Your task to perform on an android device: toggle data saver in the chrome app Image 0: 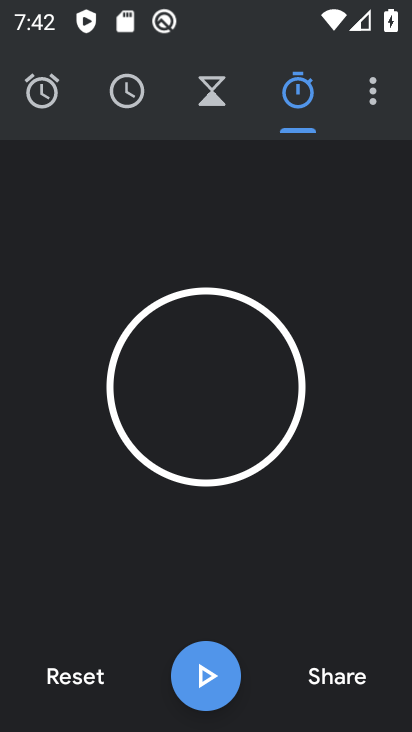
Step 0: press home button
Your task to perform on an android device: toggle data saver in the chrome app Image 1: 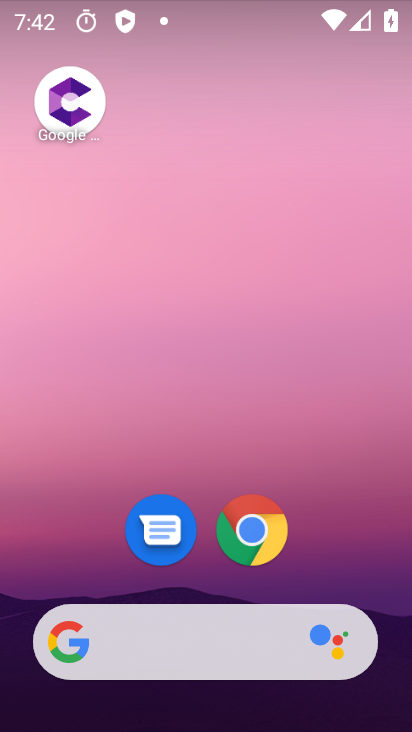
Step 1: click (259, 527)
Your task to perform on an android device: toggle data saver in the chrome app Image 2: 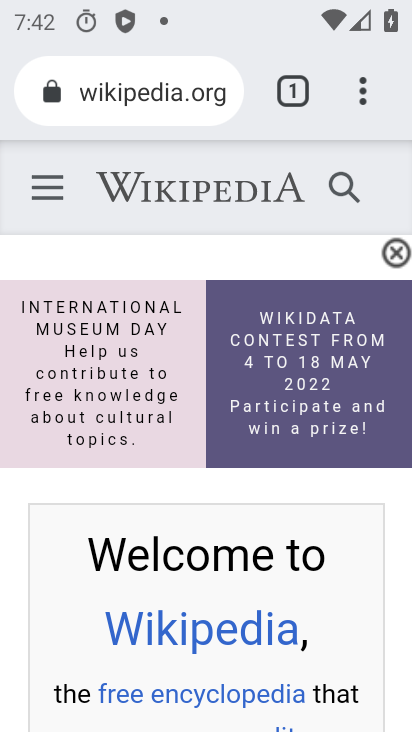
Step 2: drag from (361, 78) to (217, 583)
Your task to perform on an android device: toggle data saver in the chrome app Image 3: 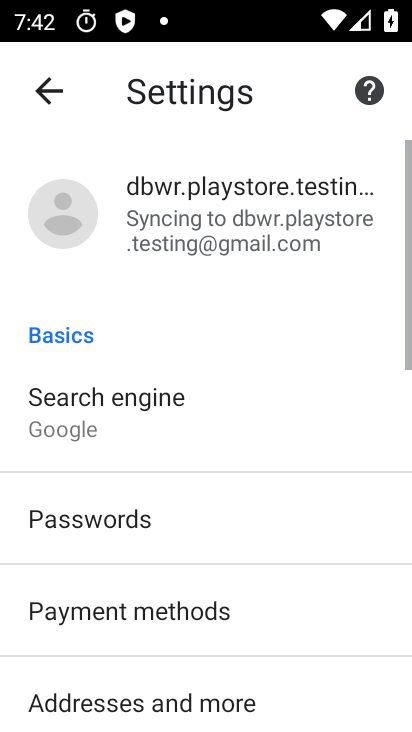
Step 3: drag from (217, 583) to (172, 133)
Your task to perform on an android device: toggle data saver in the chrome app Image 4: 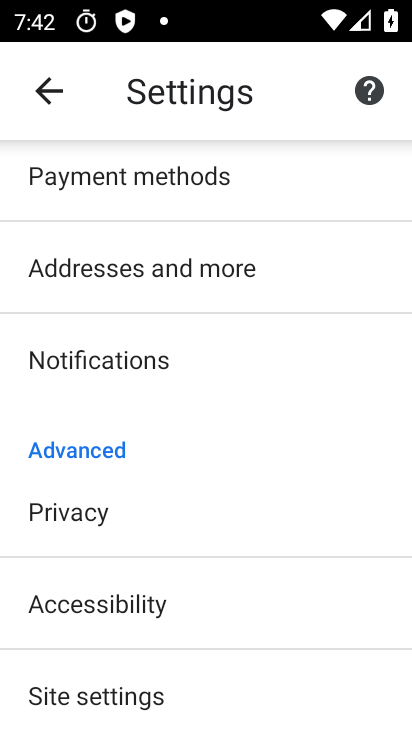
Step 4: drag from (259, 672) to (235, 249)
Your task to perform on an android device: toggle data saver in the chrome app Image 5: 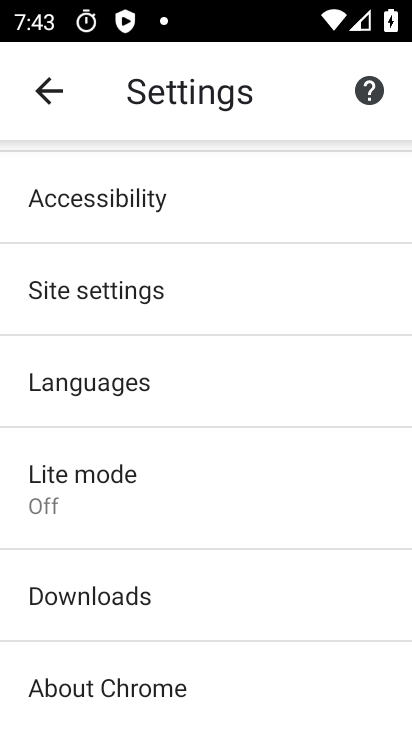
Step 5: click (139, 484)
Your task to perform on an android device: toggle data saver in the chrome app Image 6: 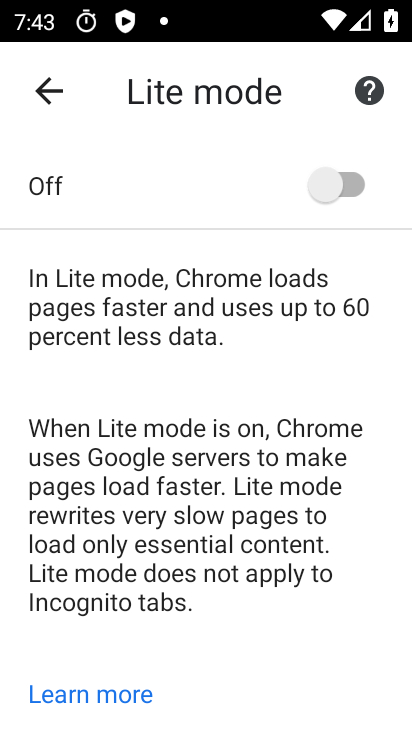
Step 6: click (320, 194)
Your task to perform on an android device: toggle data saver in the chrome app Image 7: 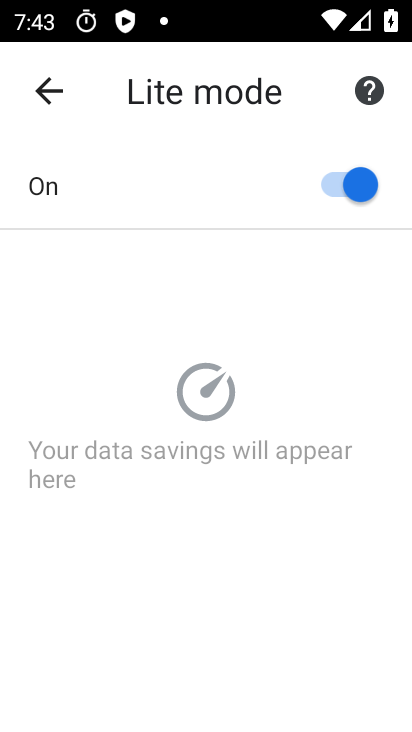
Step 7: task complete